Your task to perform on an android device: Do I have any events this weekend? Image 0: 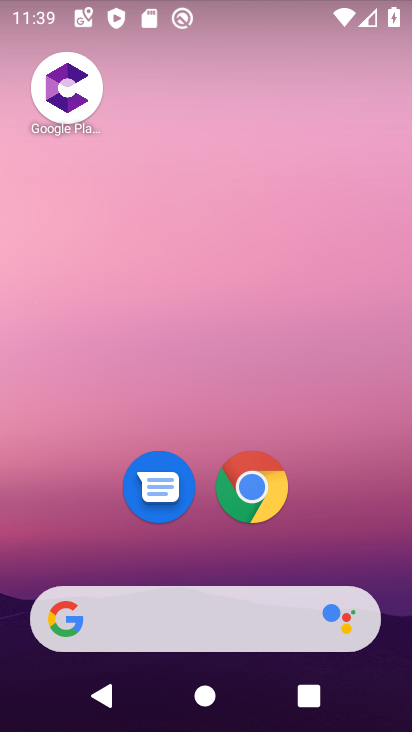
Step 0: drag from (345, 499) to (267, 128)
Your task to perform on an android device: Do I have any events this weekend? Image 1: 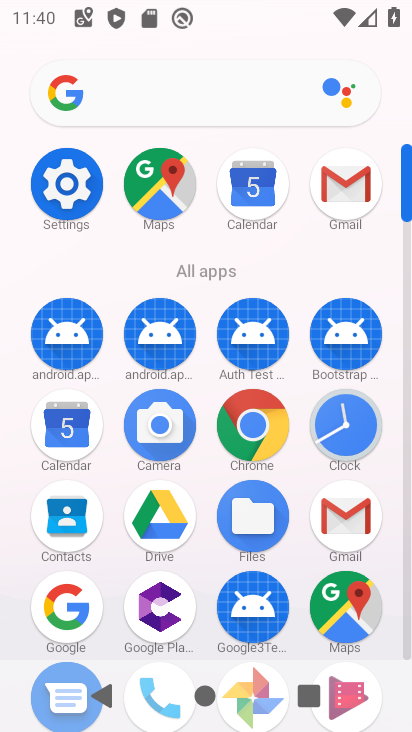
Step 1: click (259, 203)
Your task to perform on an android device: Do I have any events this weekend? Image 2: 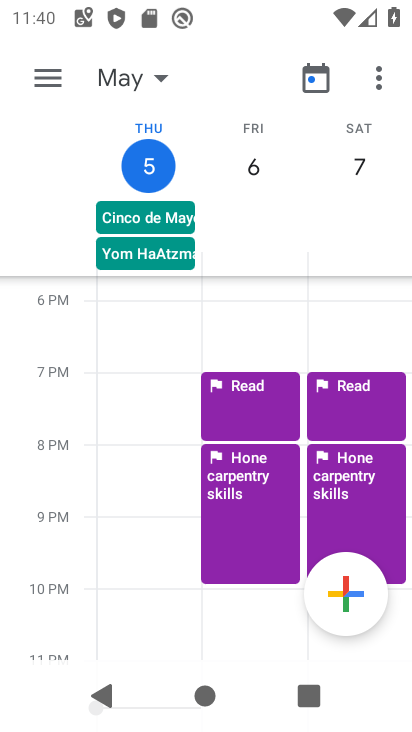
Step 2: click (22, 85)
Your task to perform on an android device: Do I have any events this weekend? Image 3: 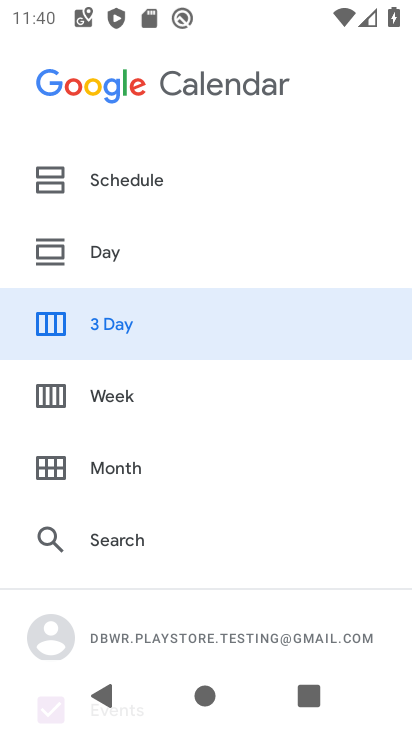
Step 3: click (164, 407)
Your task to perform on an android device: Do I have any events this weekend? Image 4: 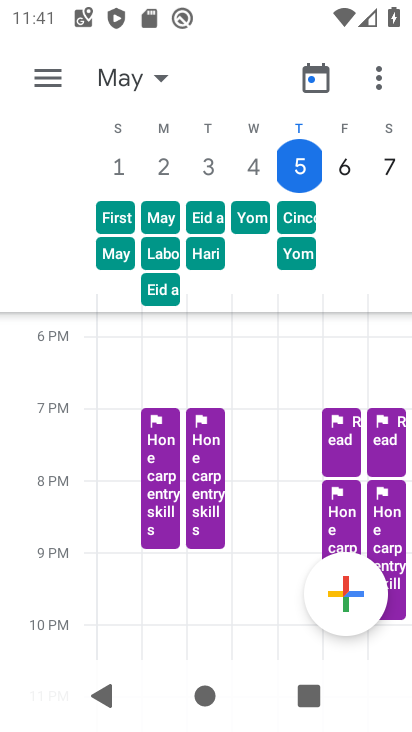
Step 4: press back button
Your task to perform on an android device: Do I have any events this weekend? Image 5: 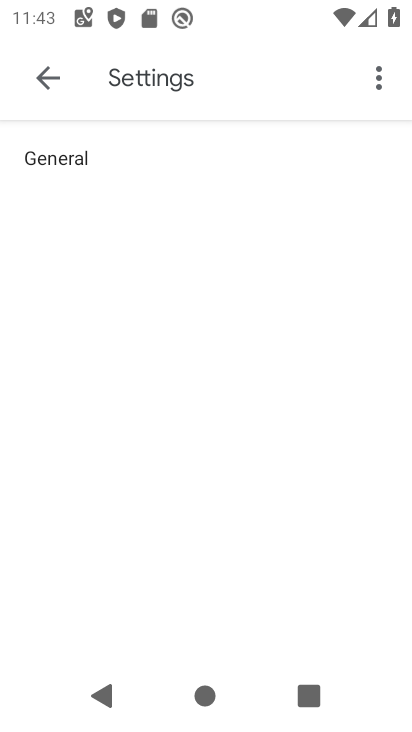
Step 5: press home button
Your task to perform on an android device: Do I have any events this weekend? Image 6: 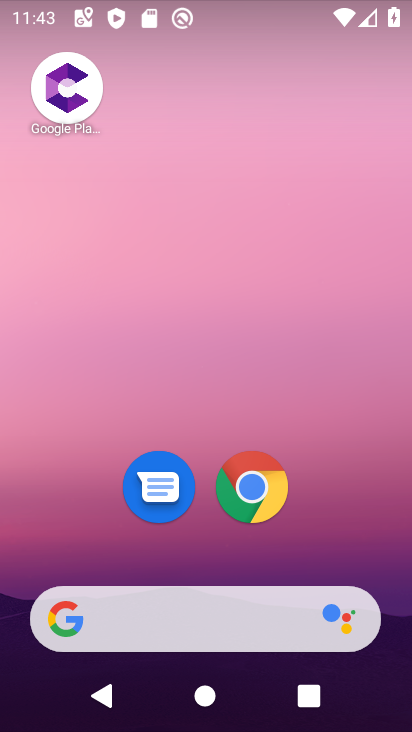
Step 6: drag from (342, 503) to (314, 38)
Your task to perform on an android device: Do I have any events this weekend? Image 7: 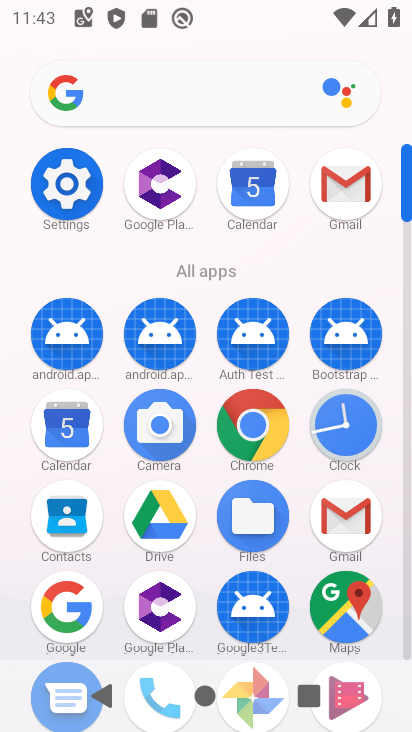
Step 7: click (272, 179)
Your task to perform on an android device: Do I have any events this weekend? Image 8: 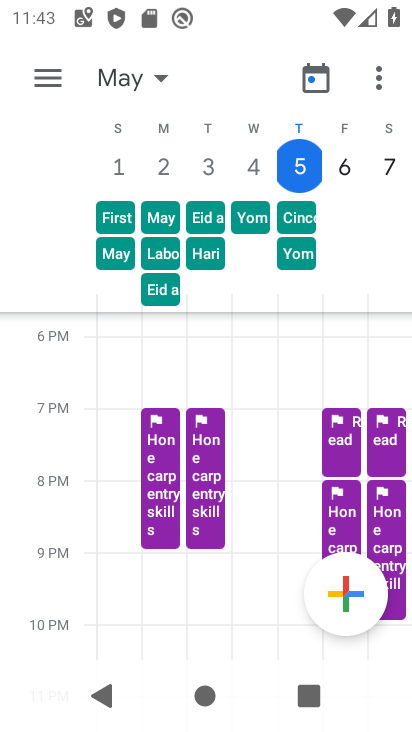
Step 8: task complete